Your task to perform on an android device: turn off picture-in-picture Image 0: 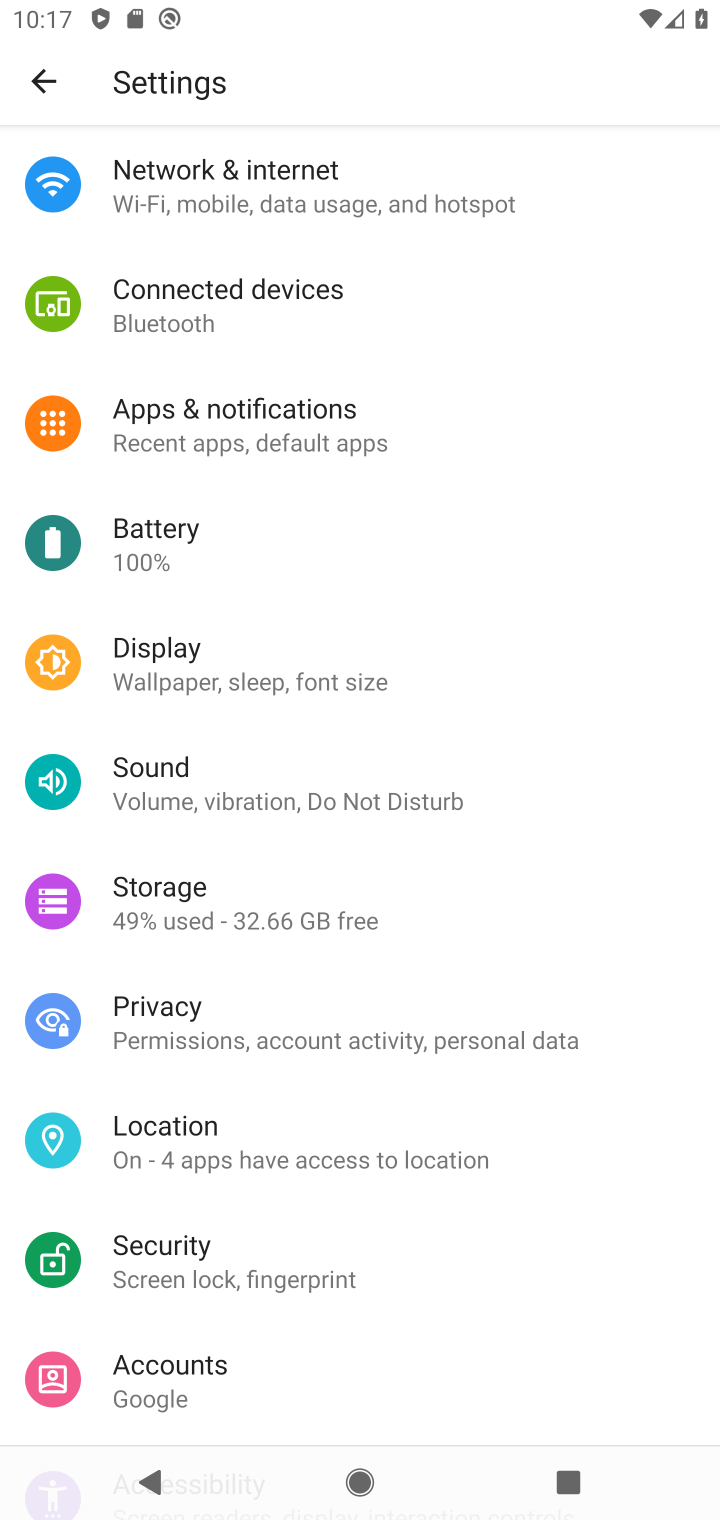
Step 0: drag from (469, 279) to (511, 1265)
Your task to perform on an android device: turn off picture-in-picture Image 1: 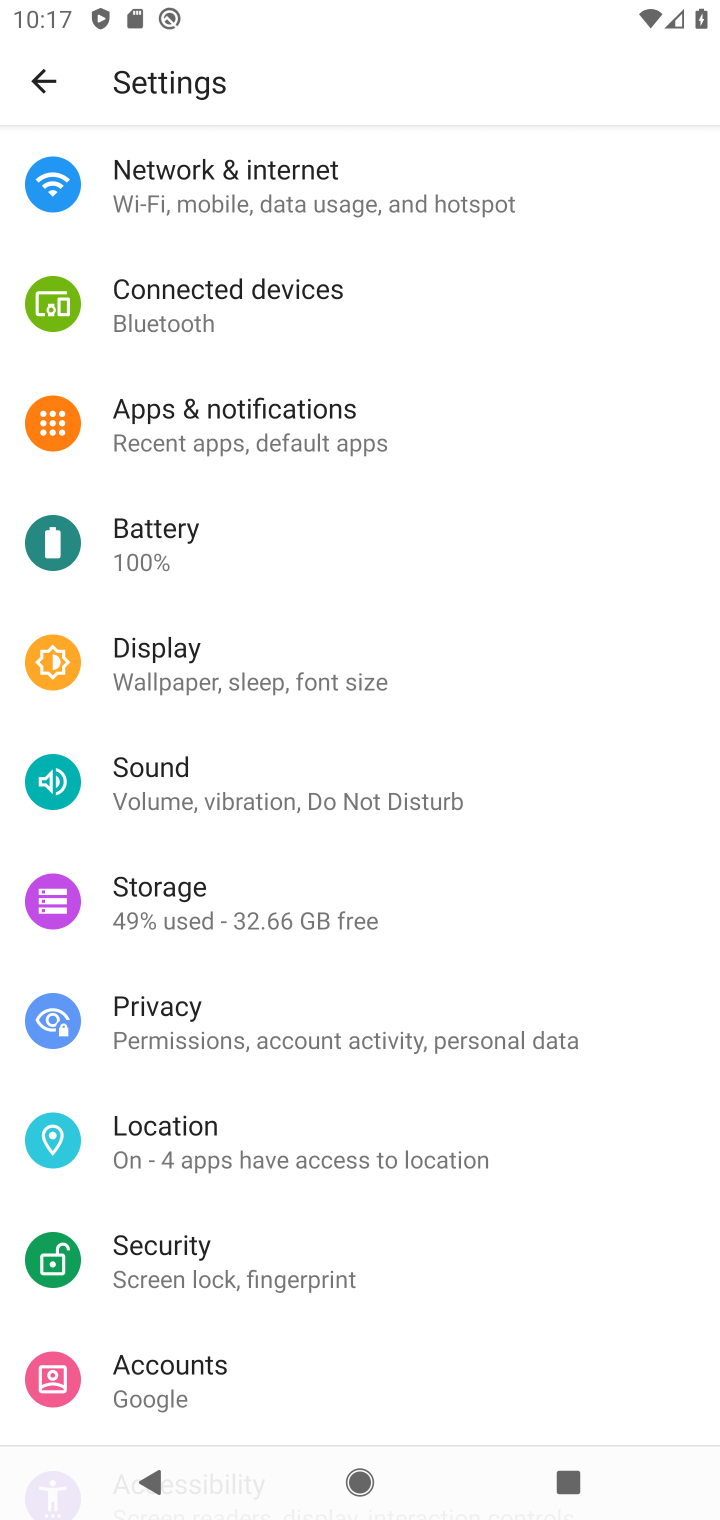
Step 1: click (281, 435)
Your task to perform on an android device: turn off picture-in-picture Image 2: 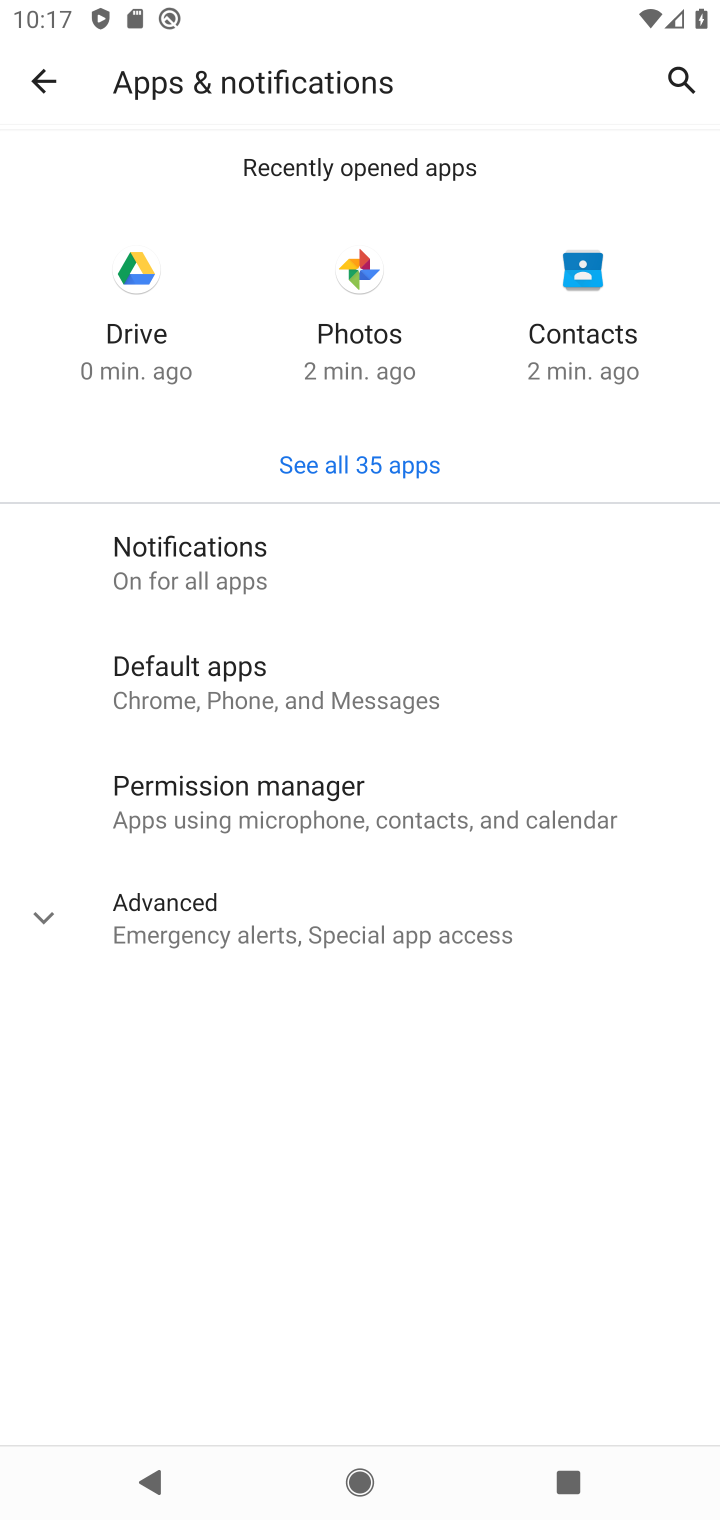
Step 2: click (293, 543)
Your task to perform on an android device: turn off picture-in-picture Image 3: 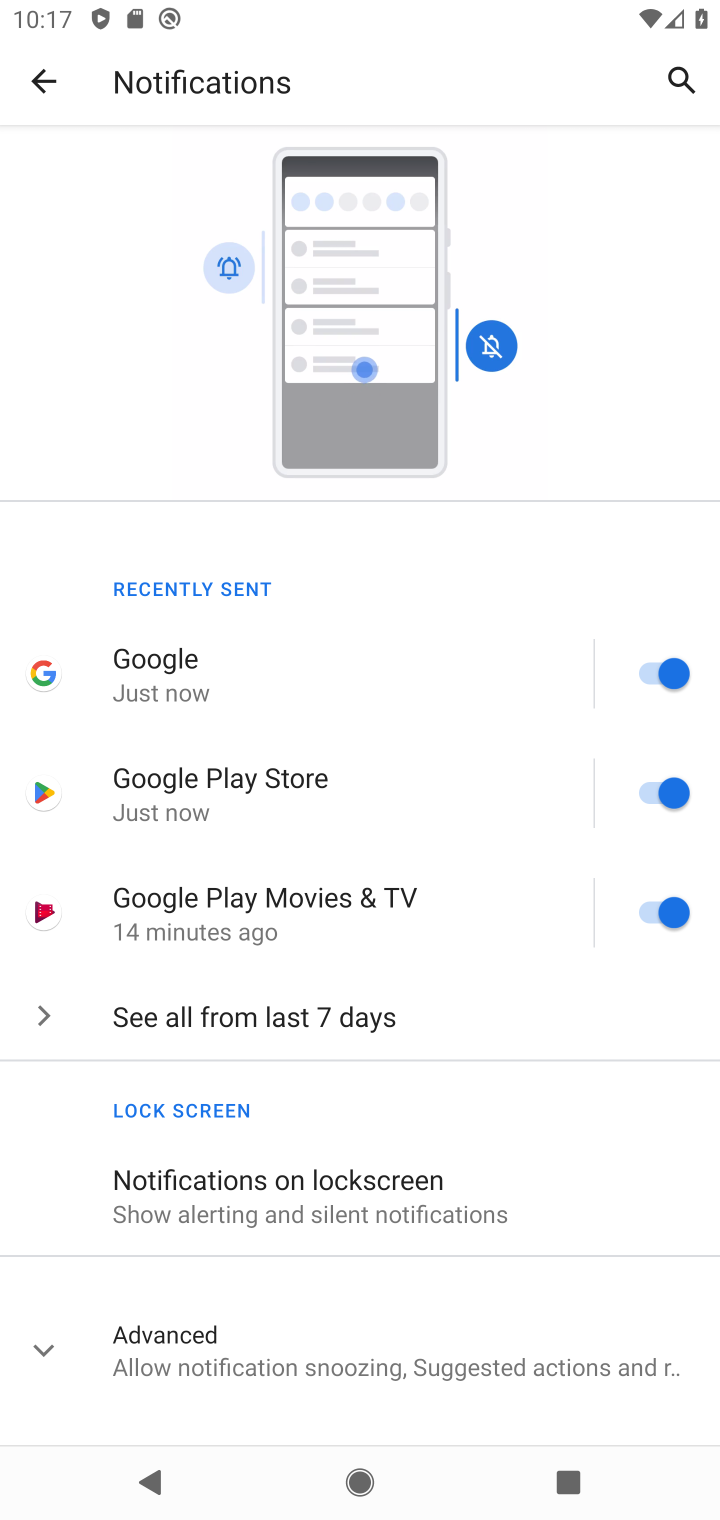
Step 3: drag from (303, 1318) to (465, 202)
Your task to perform on an android device: turn off picture-in-picture Image 4: 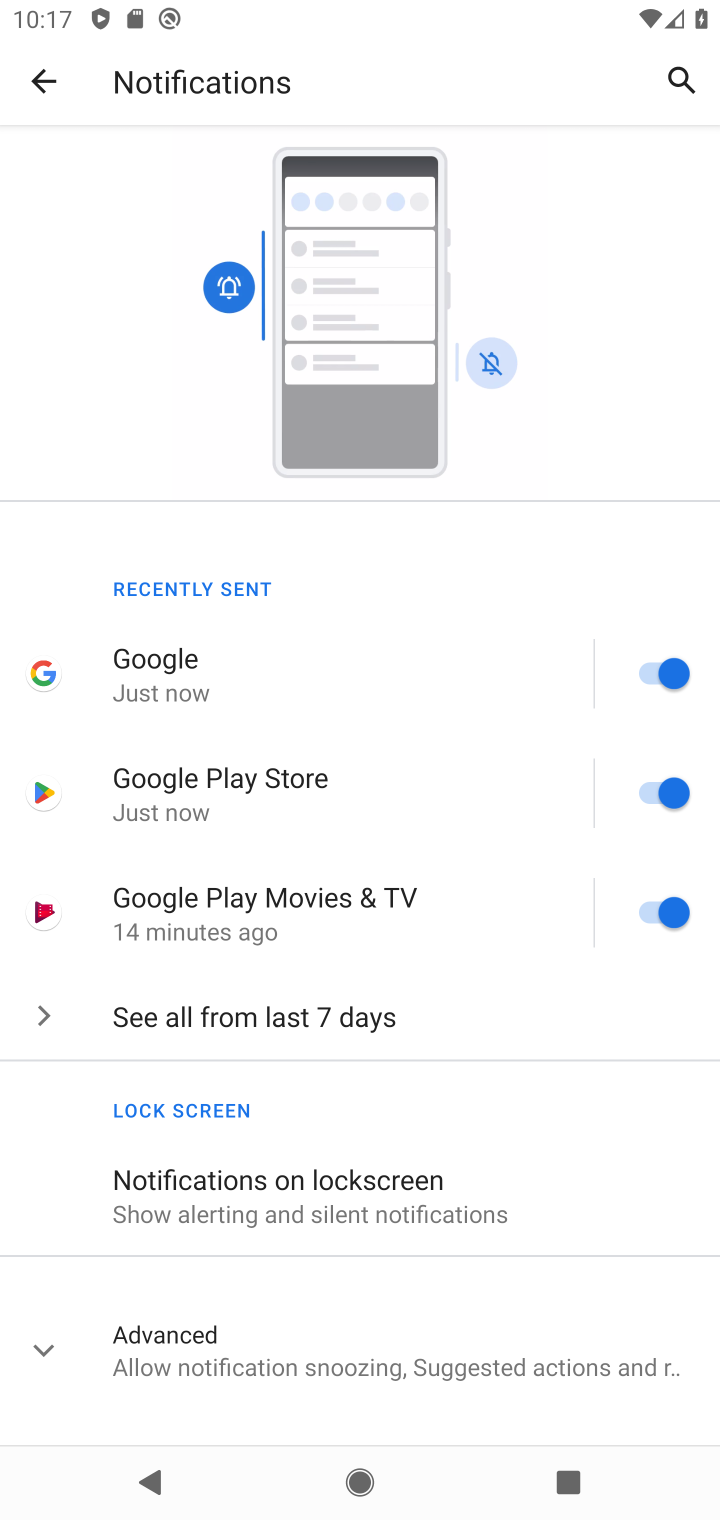
Step 4: click (245, 1333)
Your task to perform on an android device: turn off picture-in-picture Image 5: 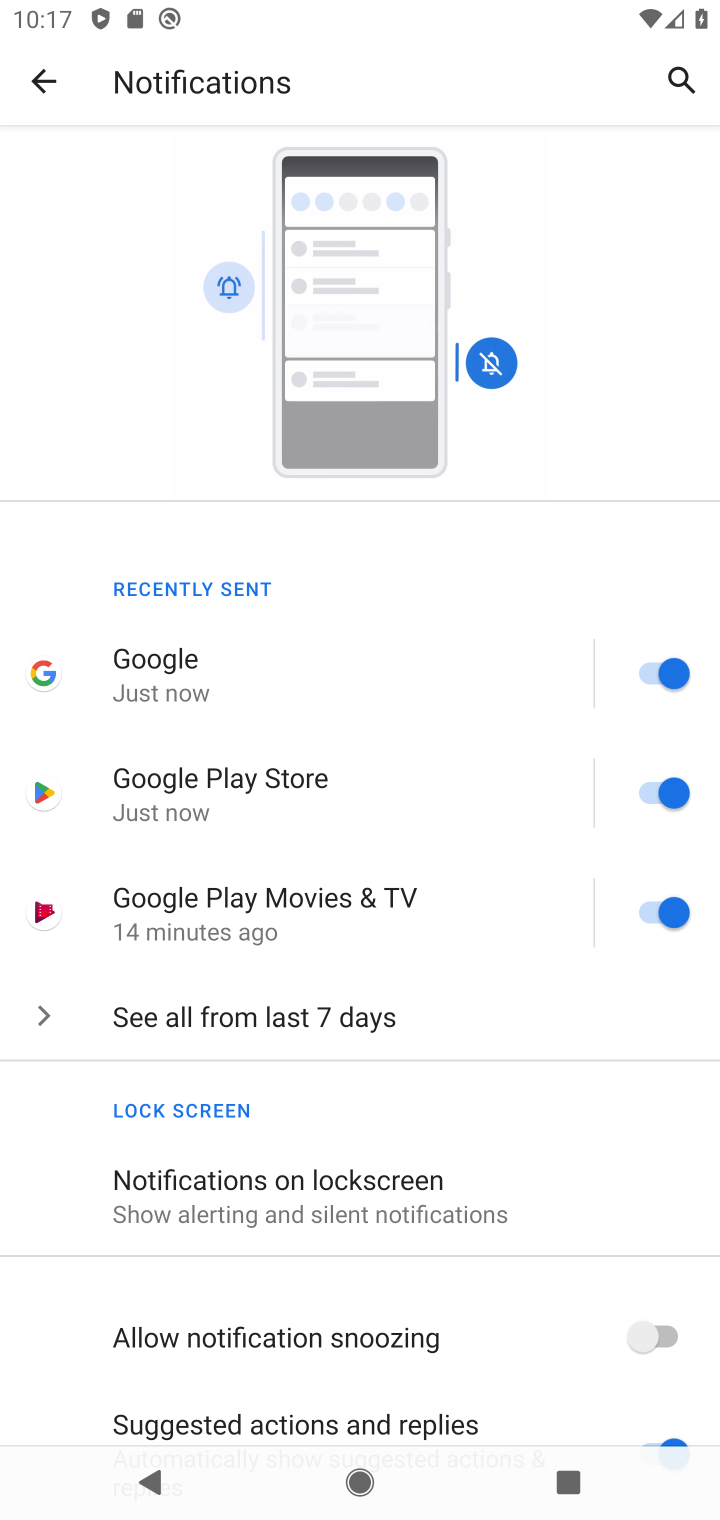
Step 5: drag from (287, 1008) to (349, 381)
Your task to perform on an android device: turn off picture-in-picture Image 6: 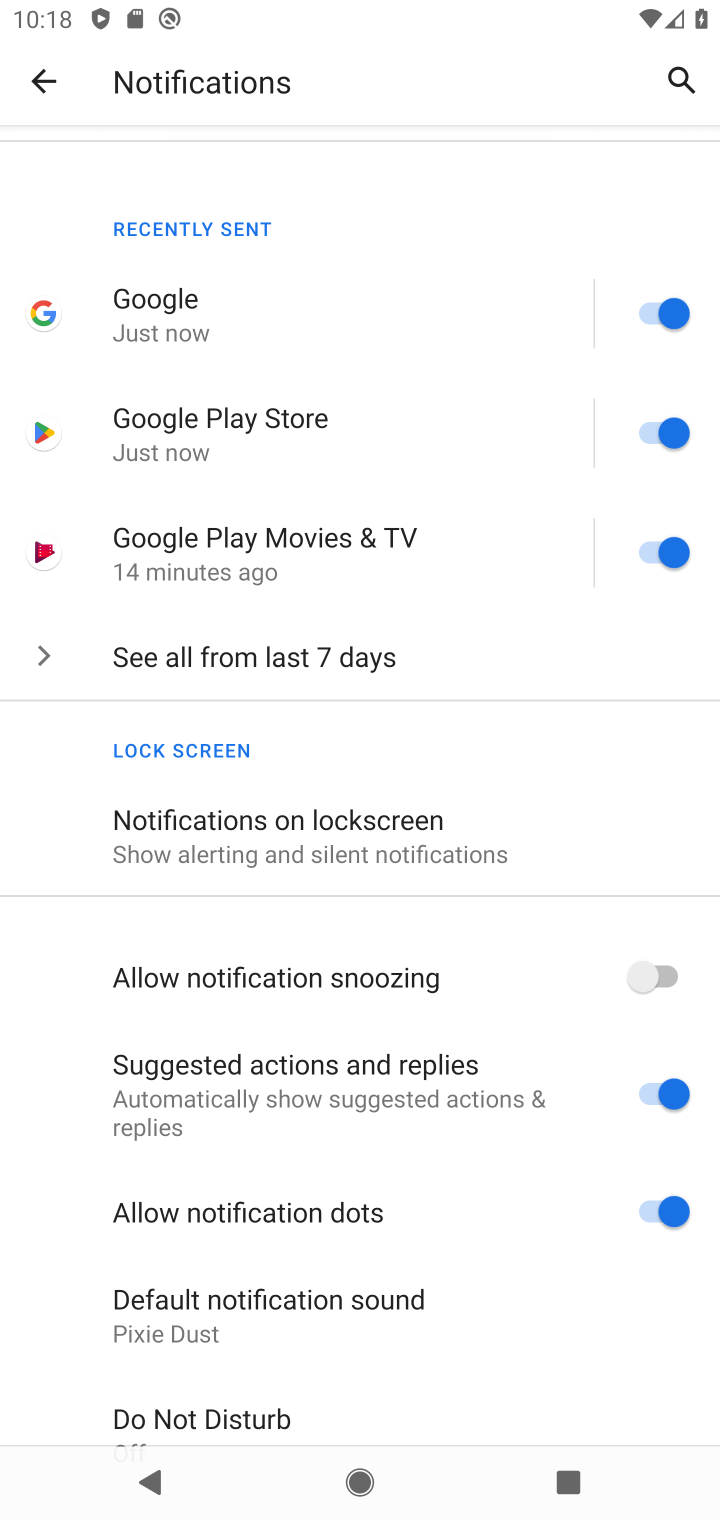
Step 6: drag from (319, 1152) to (432, 408)
Your task to perform on an android device: turn off picture-in-picture Image 7: 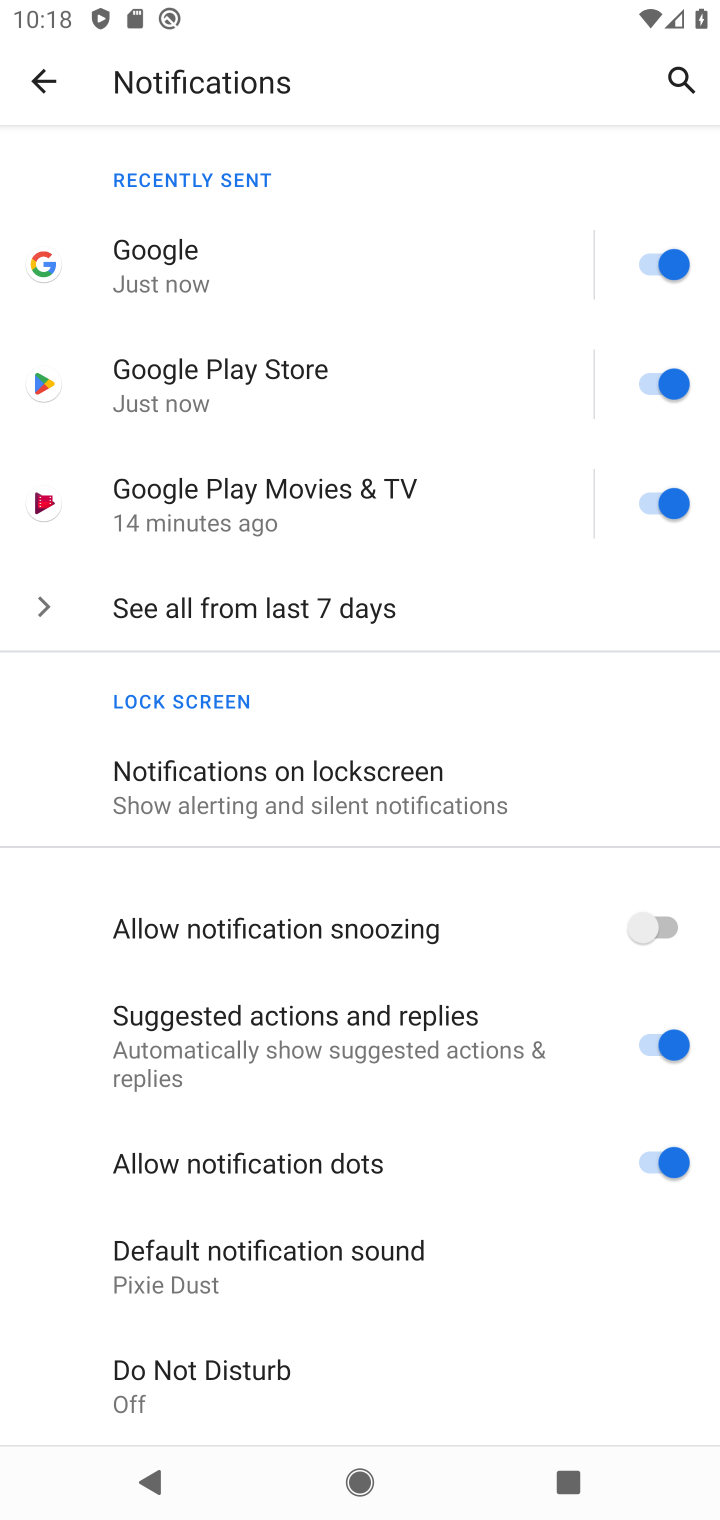
Step 7: drag from (331, 1331) to (527, 15)
Your task to perform on an android device: turn off picture-in-picture Image 8: 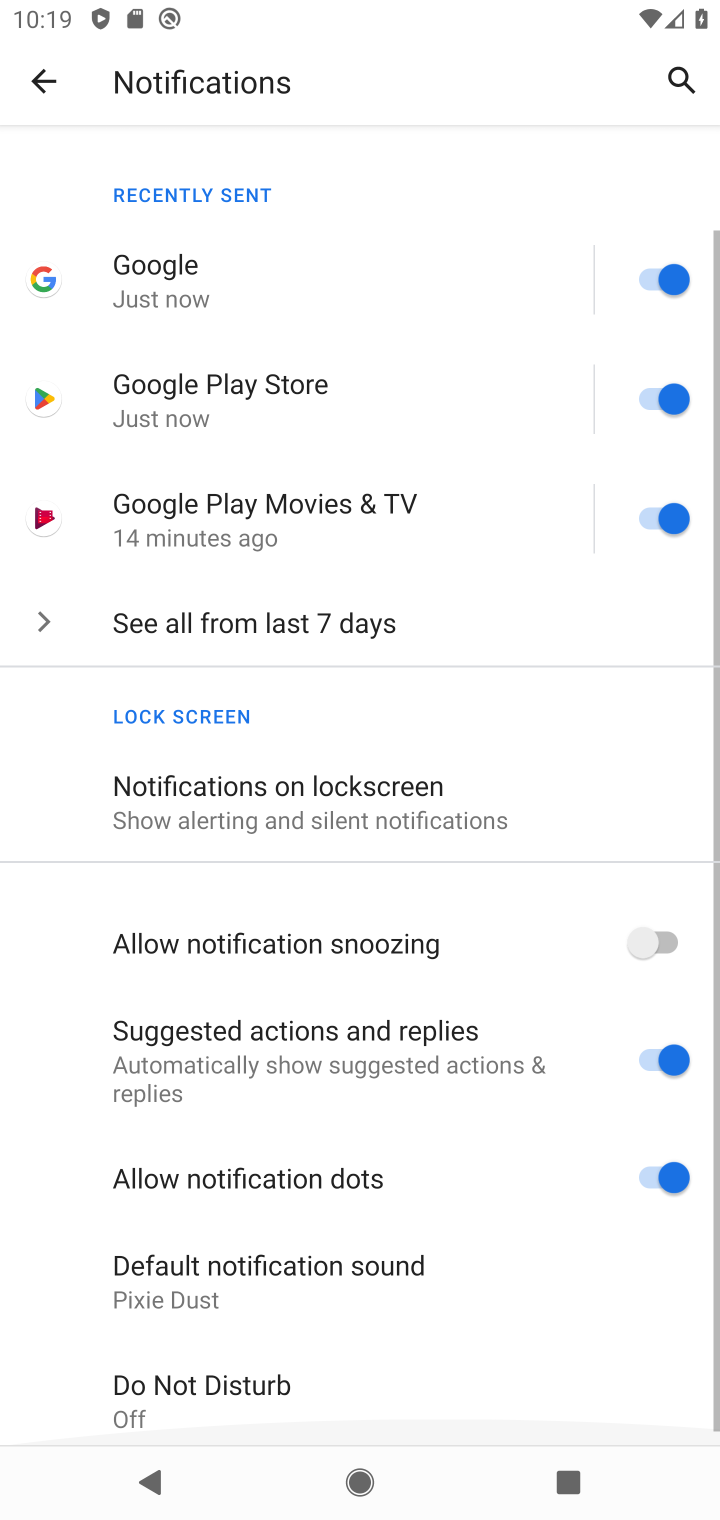
Step 8: click (39, 62)
Your task to perform on an android device: turn off picture-in-picture Image 9: 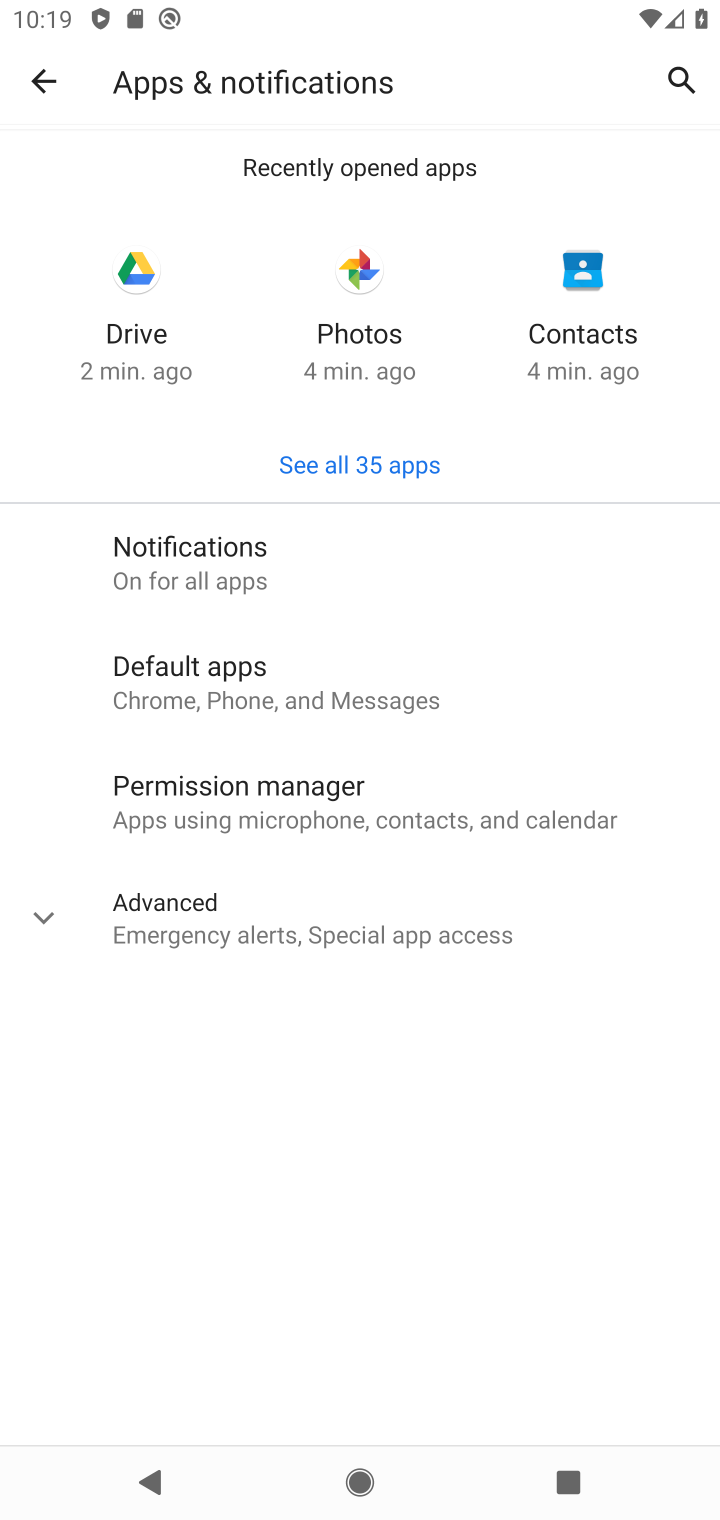
Step 9: click (256, 911)
Your task to perform on an android device: turn off picture-in-picture Image 10: 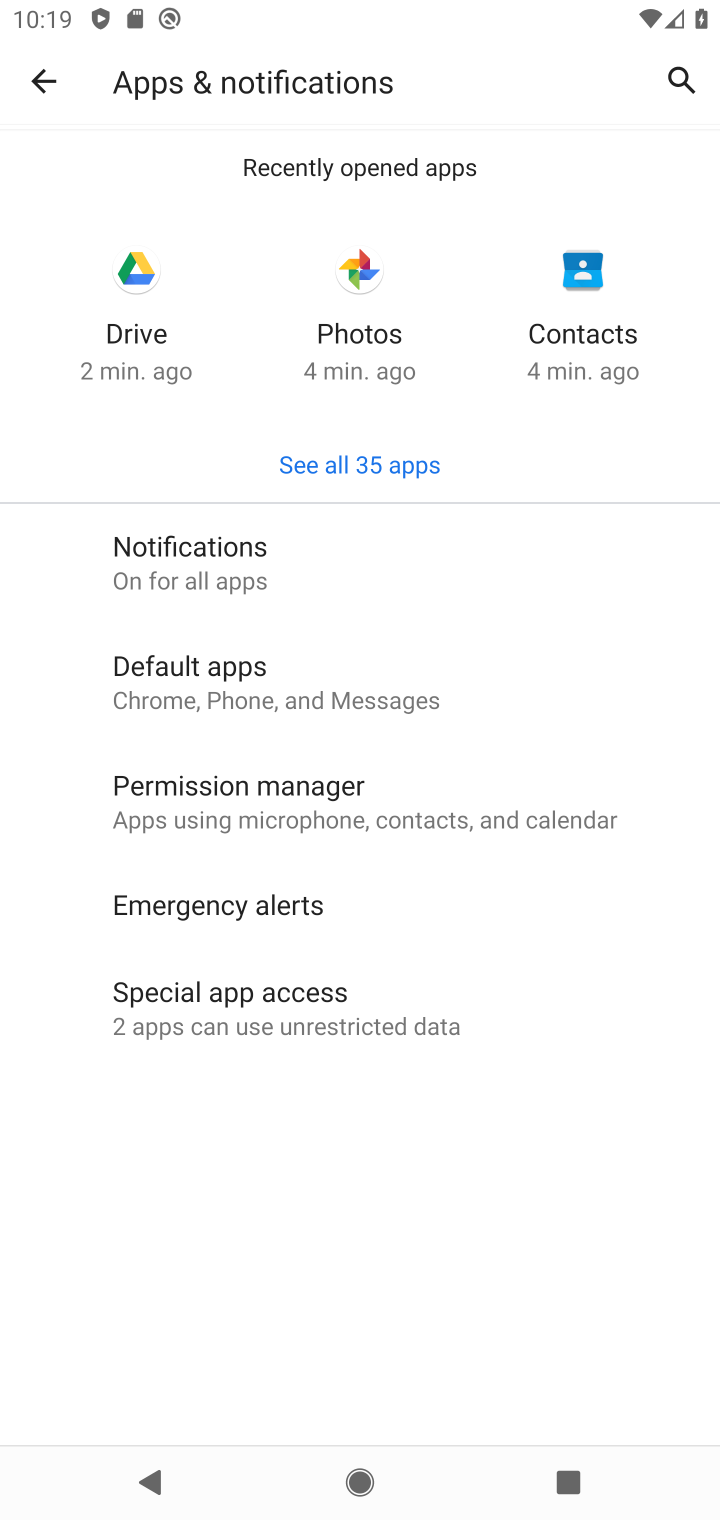
Step 10: click (250, 1001)
Your task to perform on an android device: turn off picture-in-picture Image 11: 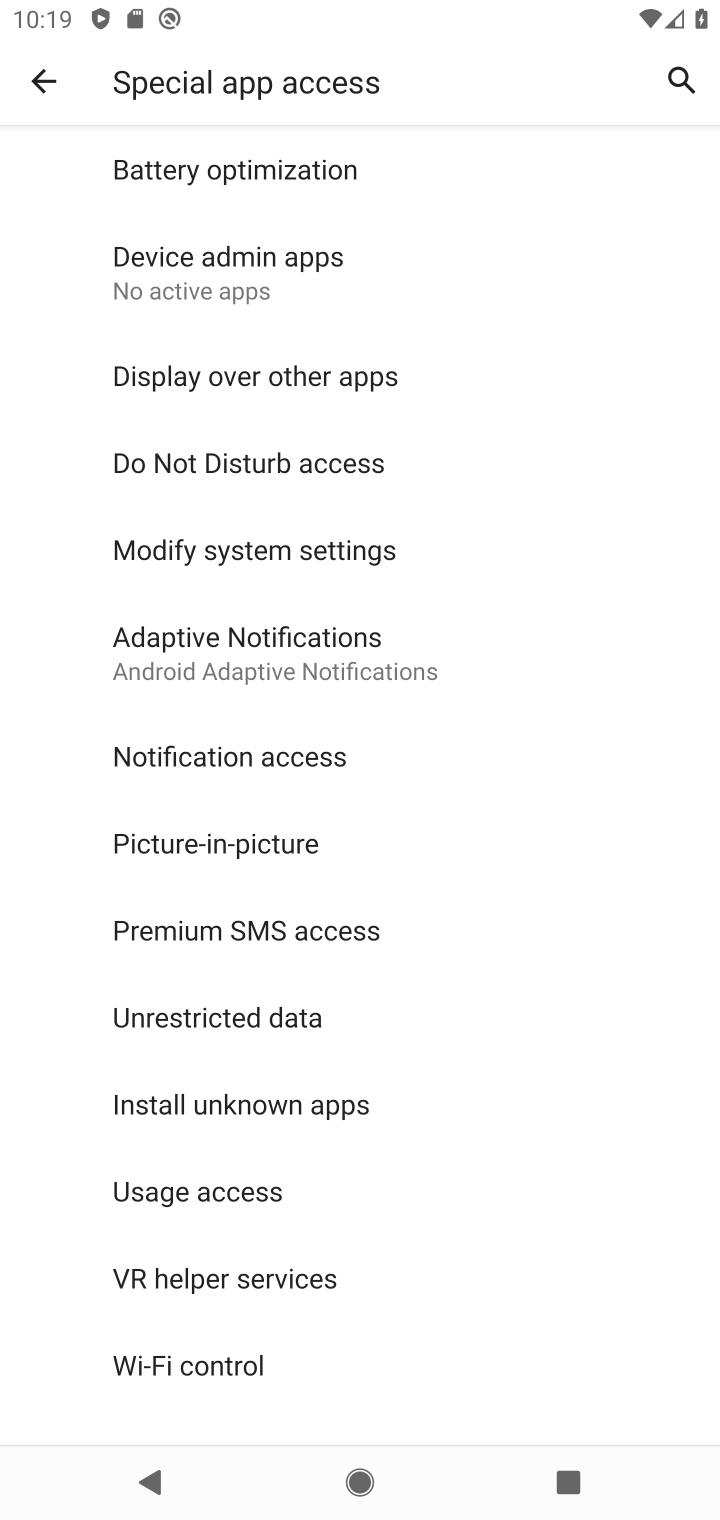
Step 11: click (222, 838)
Your task to perform on an android device: turn off picture-in-picture Image 12: 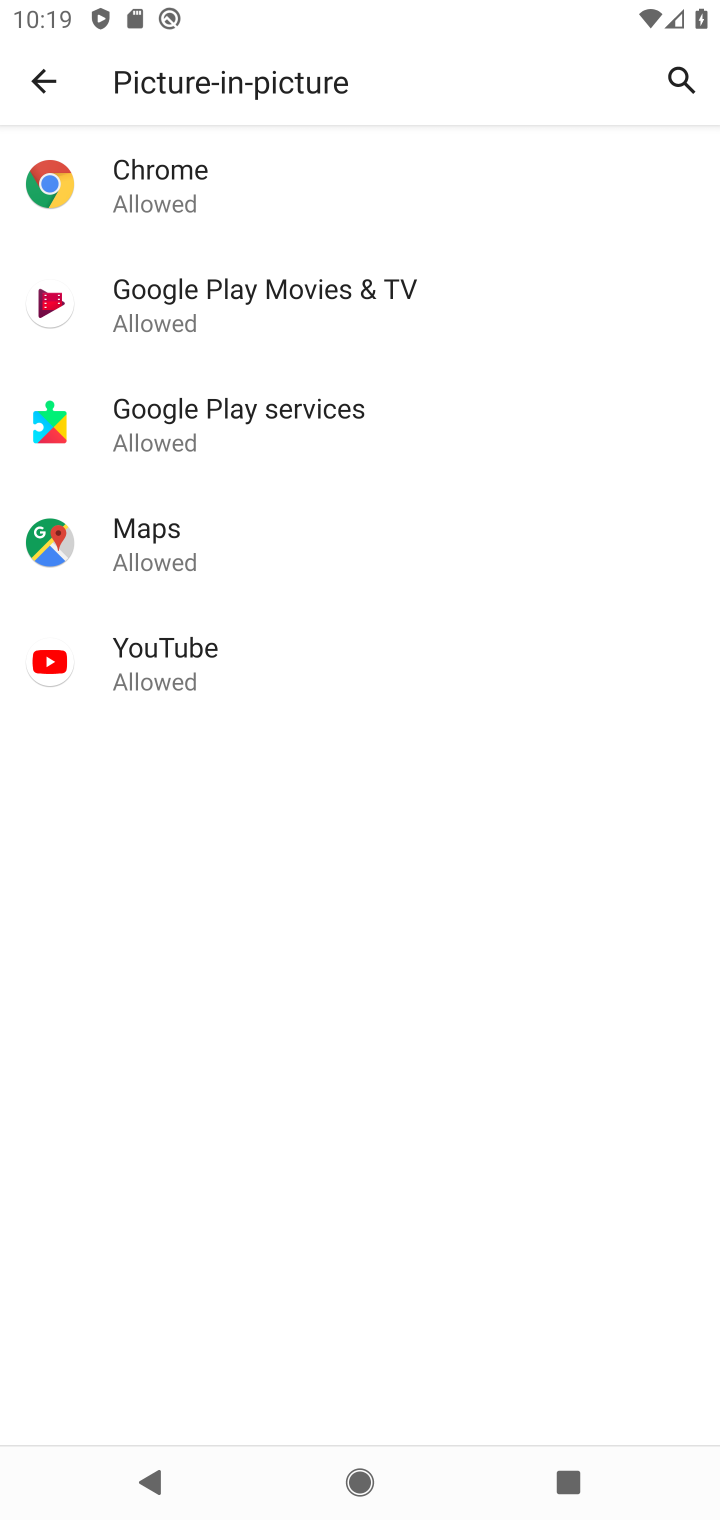
Step 12: click (248, 164)
Your task to perform on an android device: turn off picture-in-picture Image 13: 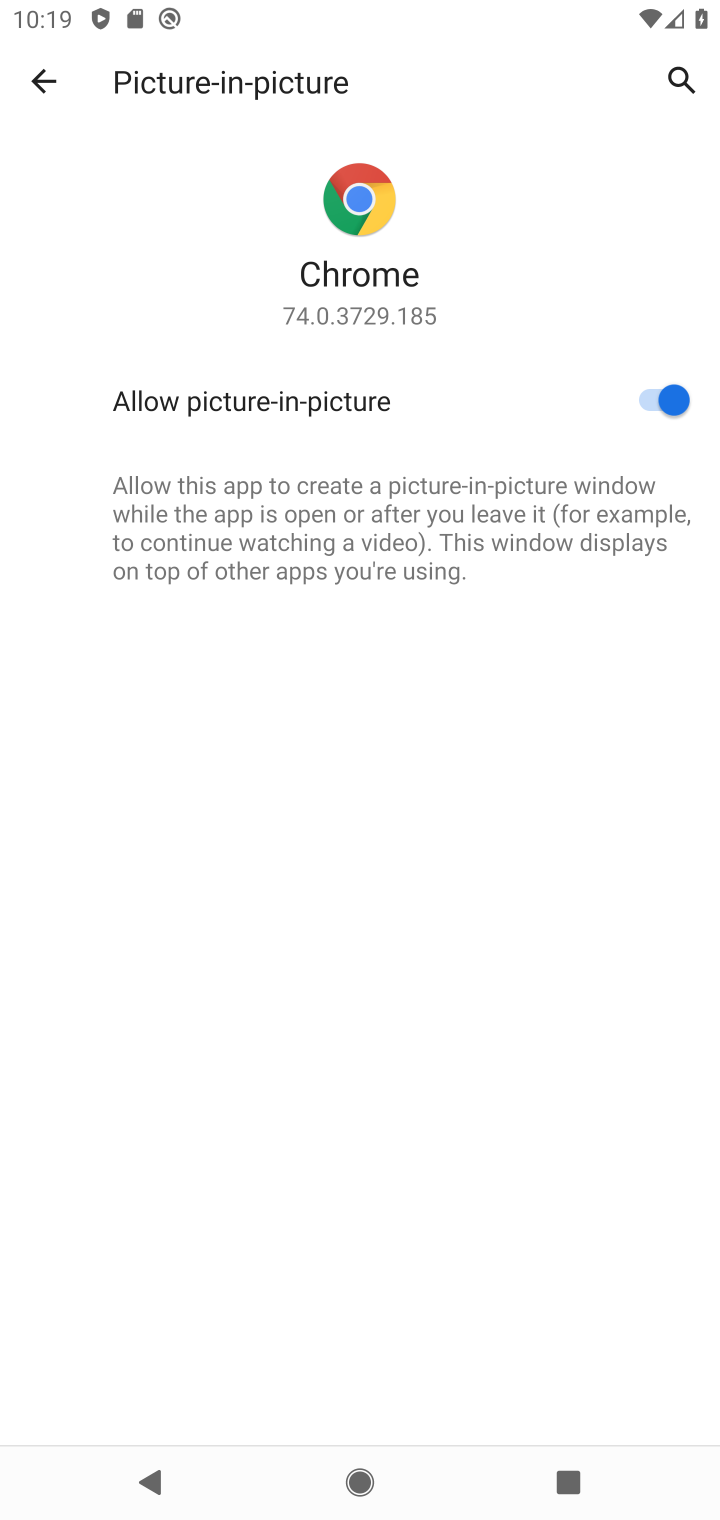
Step 13: click (663, 378)
Your task to perform on an android device: turn off picture-in-picture Image 14: 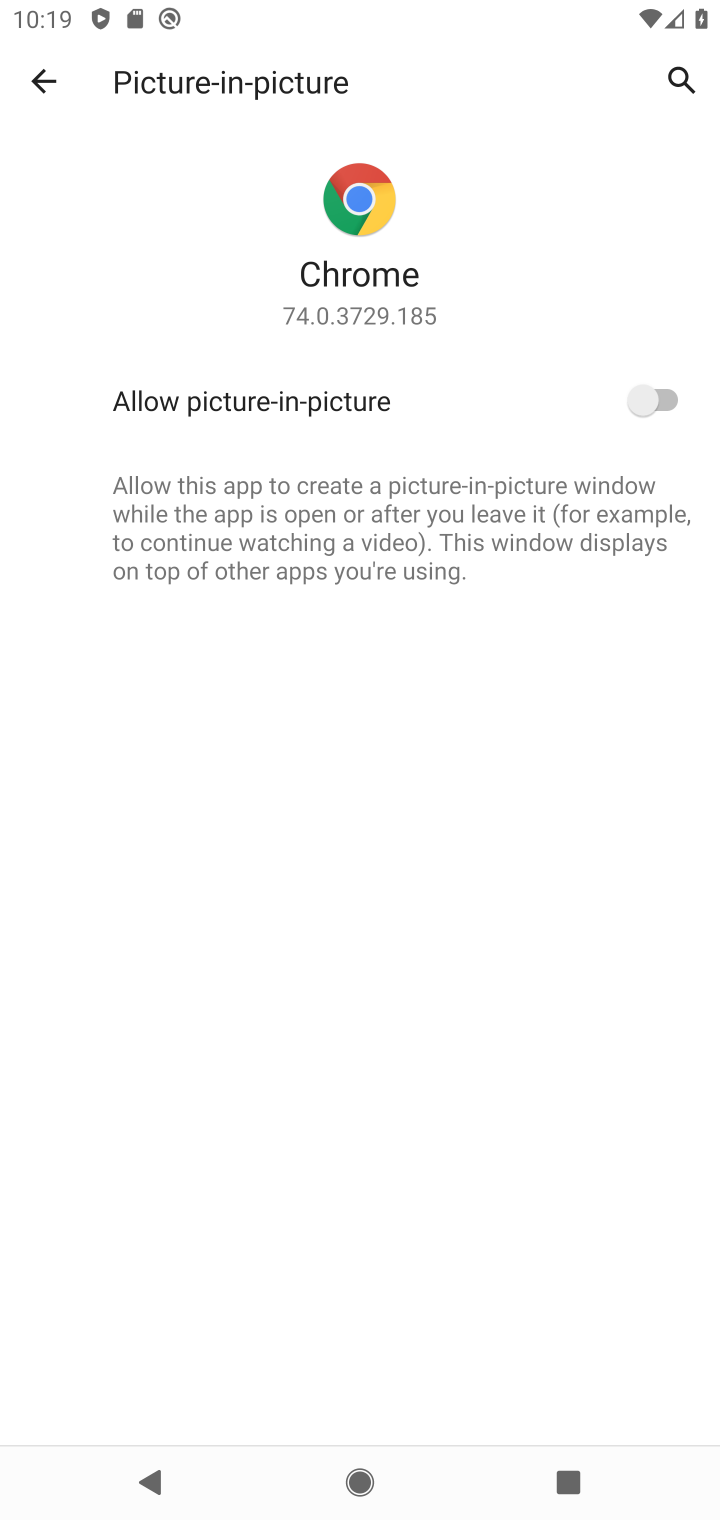
Step 14: task complete